Your task to perform on an android device: refresh tabs in the chrome app Image 0: 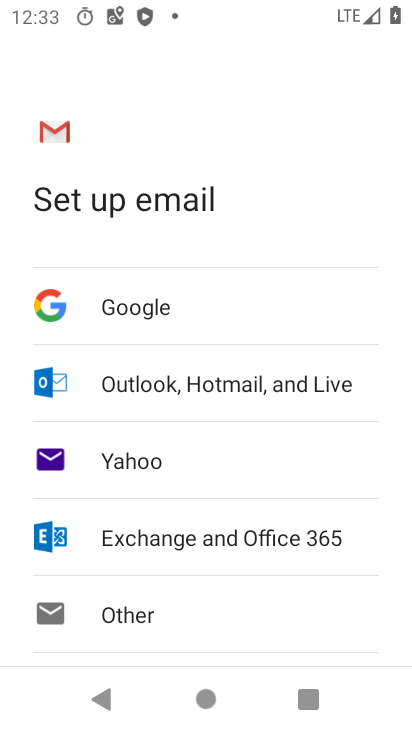
Step 0: press home button
Your task to perform on an android device: refresh tabs in the chrome app Image 1: 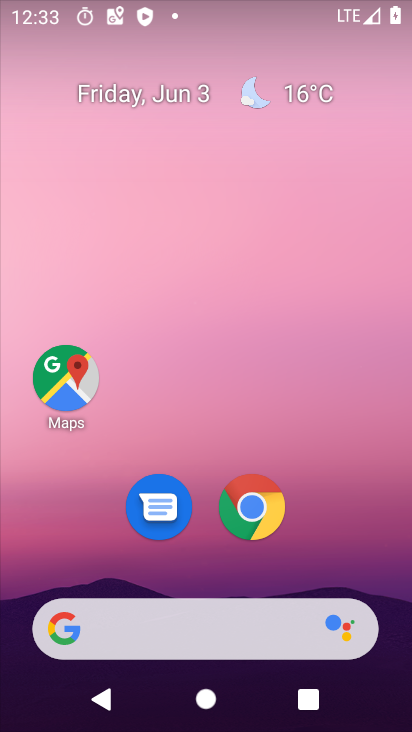
Step 1: drag from (392, 630) to (295, 47)
Your task to perform on an android device: refresh tabs in the chrome app Image 2: 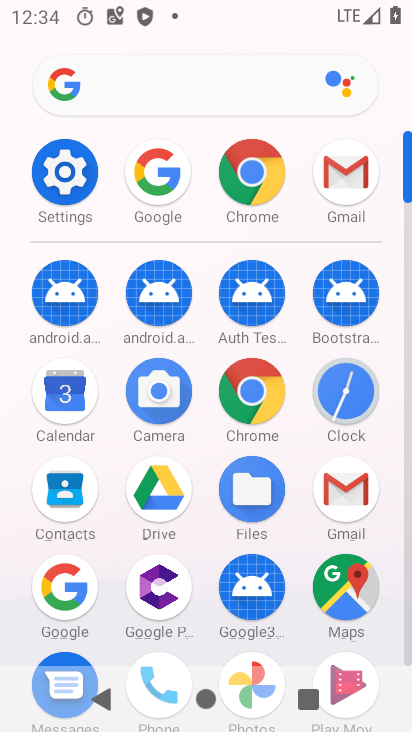
Step 2: click (259, 398)
Your task to perform on an android device: refresh tabs in the chrome app Image 3: 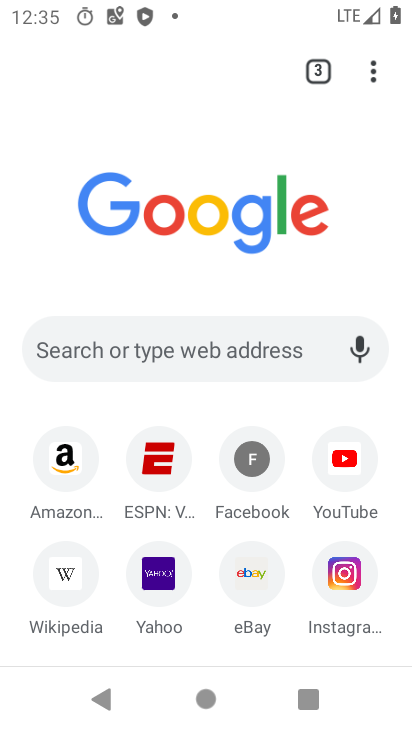
Step 3: click (369, 60)
Your task to perform on an android device: refresh tabs in the chrome app Image 4: 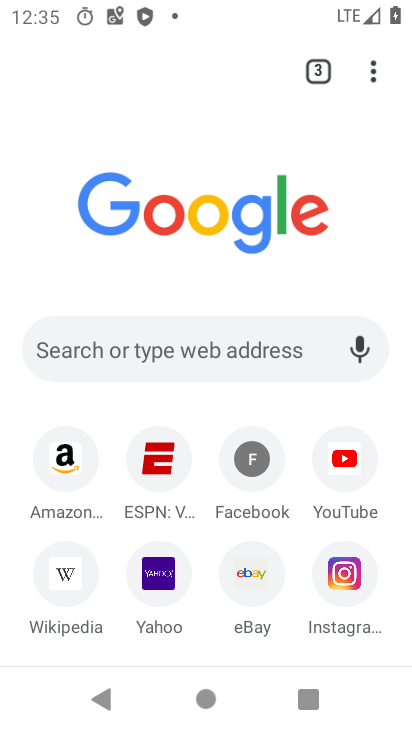
Step 4: click (375, 74)
Your task to perform on an android device: refresh tabs in the chrome app Image 5: 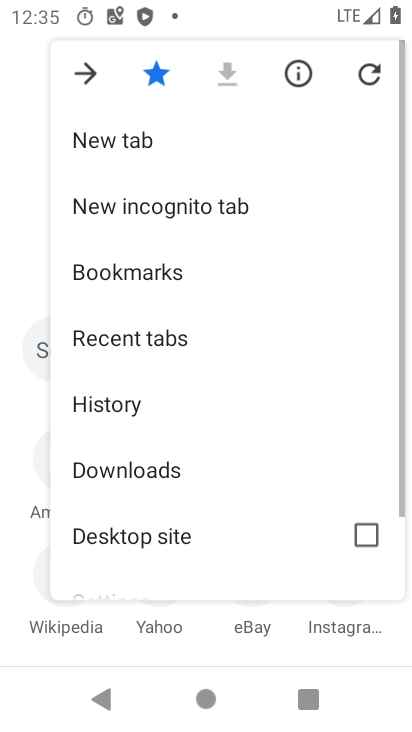
Step 5: click (368, 71)
Your task to perform on an android device: refresh tabs in the chrome app Image 6: 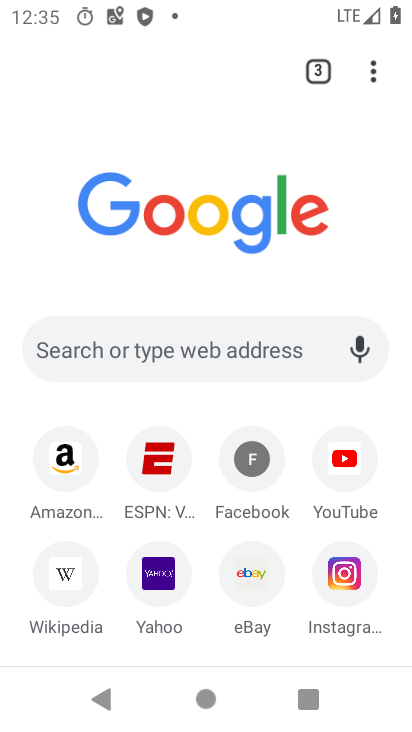
Step 6: task complete